Your task to perform on an android device: Go to Google maps Image 0: 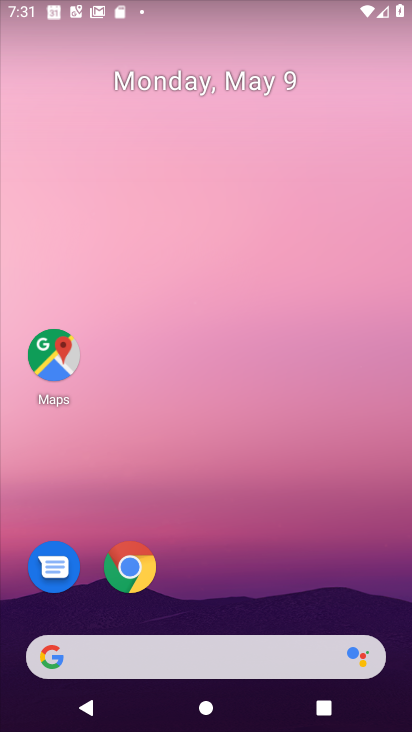
Step 0: drag from (179, 604) to (223, 177)
Your task to perform on an android device: Go to Google maps Image 1: 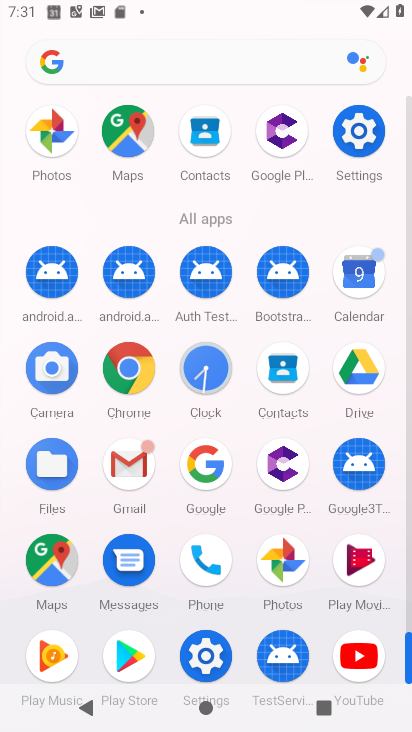
Step 1: drag from (155, 658) to (169, 251)
Your task to perform on an android device: Go to Google maps Image 2: 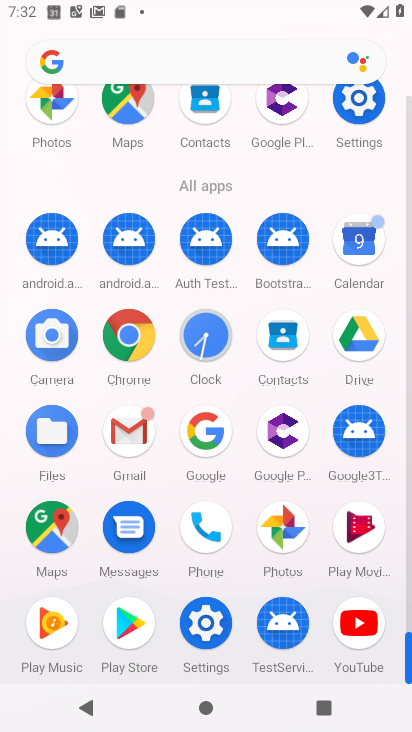
Step 2: click (51, 531)
Your task to perform on an android device: Go to Google maps Image 3: 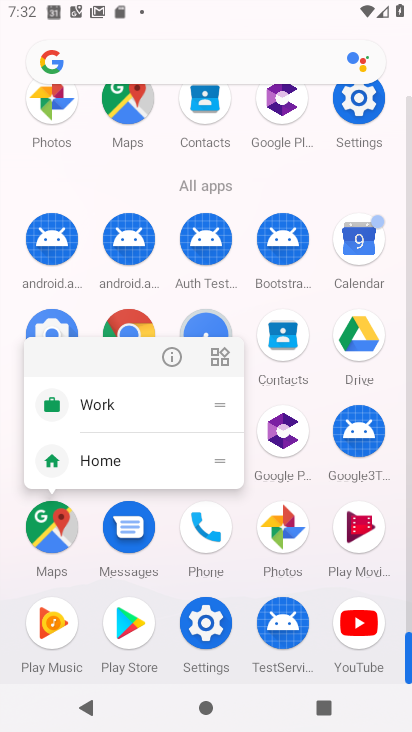
Step 3: click (171, 350)
Your task to perform on an android device: Go to Google maps Image 4: 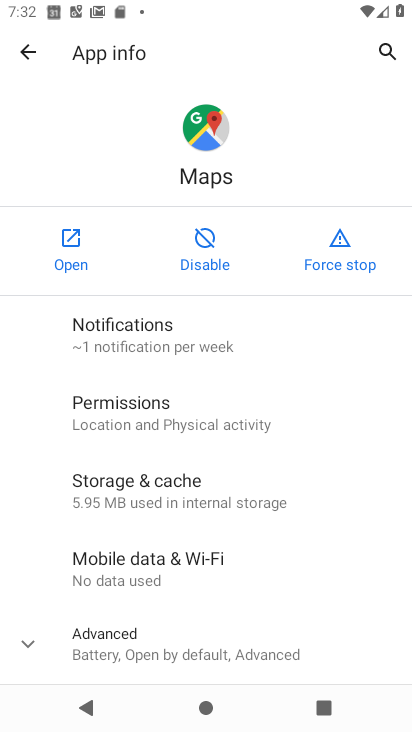
Step 4: click (49, 229)
Your task to perform on an android device: Go to Google maps Image 5: 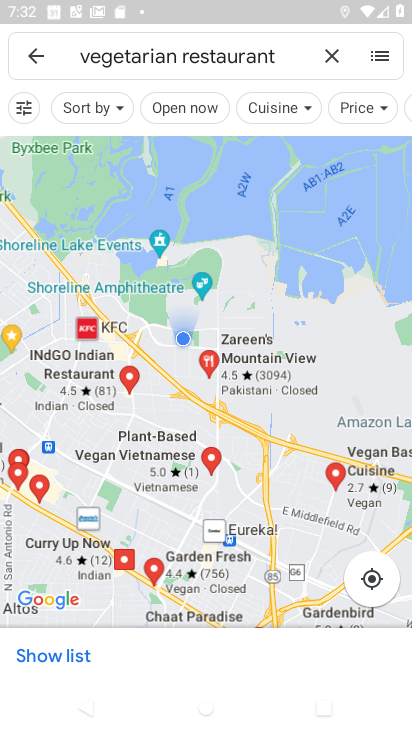
Step 5: task complete